Your task to perform on an android device: toggle data saver in the chrome app Image 0: 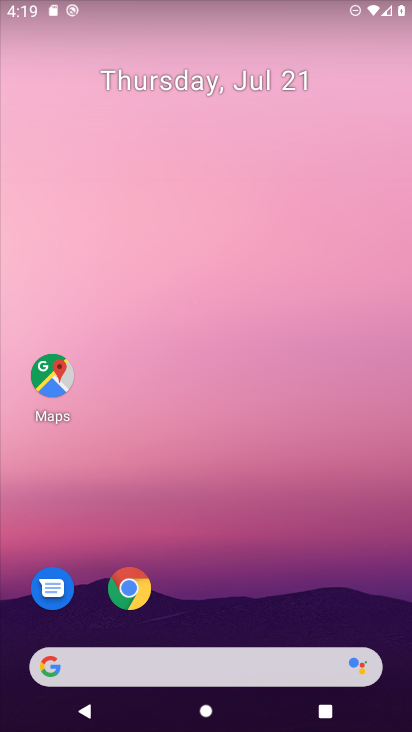
Step 0: drag from (214, 513) to (244, 138)
Your task to perform on an android device: toggle data saver in the chrome app Image 1: 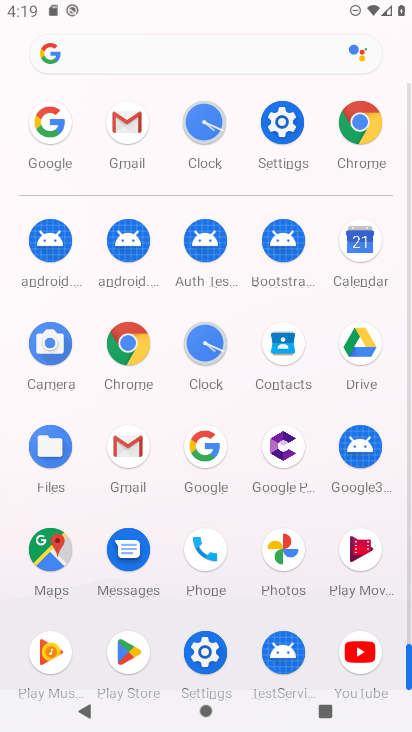
Step 1: click (368, 155)
Your task to perform on an android device: toggle data saver in the chrome app Image 2: 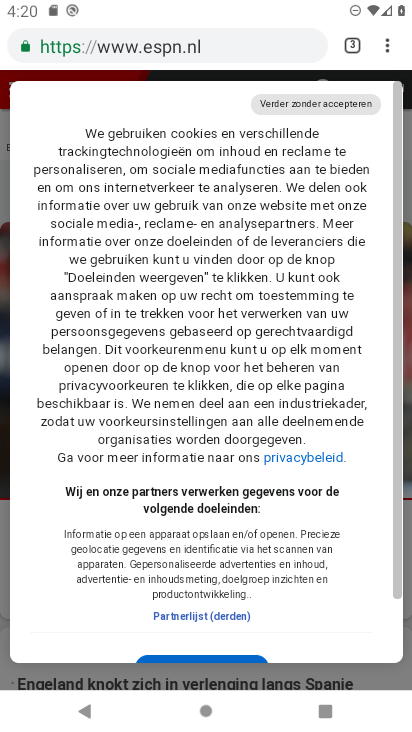
Step 2: click (386, 36)
Your task to perform on an android device: toggle data saver in the chrome app Image 3: 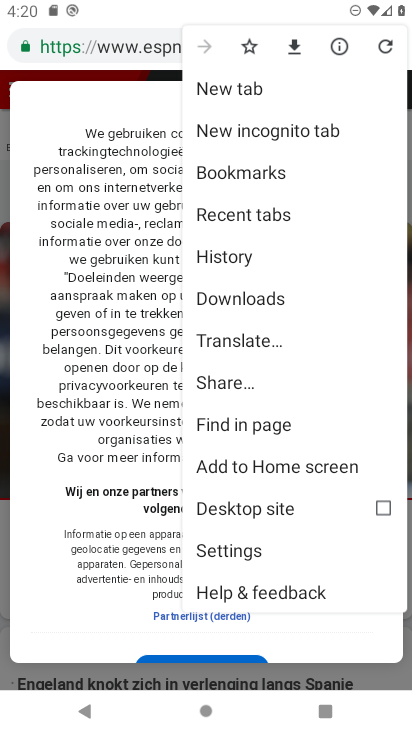
Step 3: click (223, 551)
Your task to perform on an android device: toggle data saver in the chrome app Image 4: 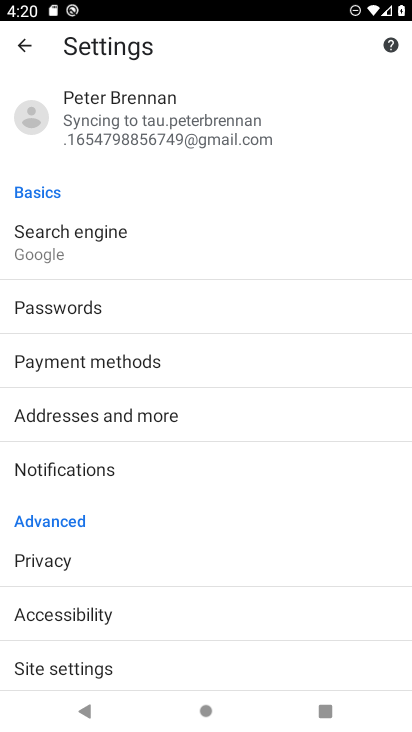
Step 4: drag from (120, 575) to (201, 119)
Your task to perform on an android device: toggle data saver in the chrome app Image 5: 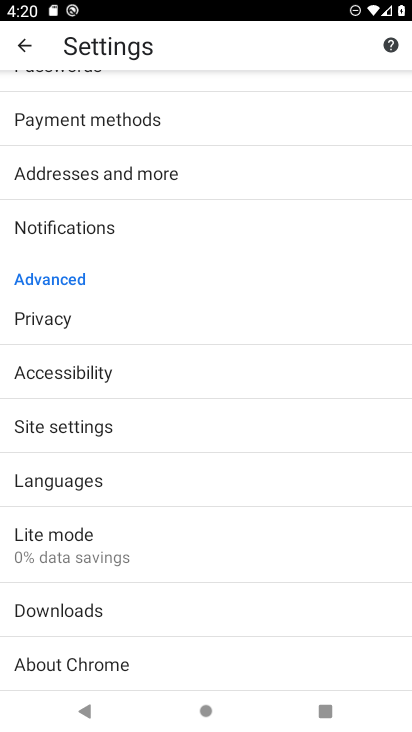
Step 5: click (97, 543)
Your task to perform on an android device: toggle data saver in the chrome app Image 6: 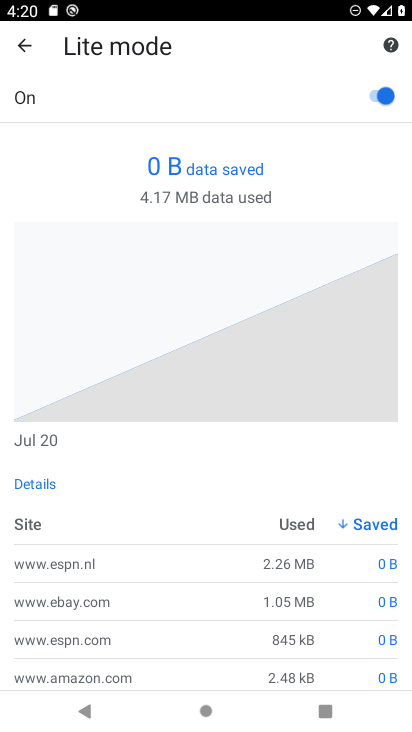
Step 6: task complete